Your task to perform on an android device: turn on the 24-hour format for clock Image 0: 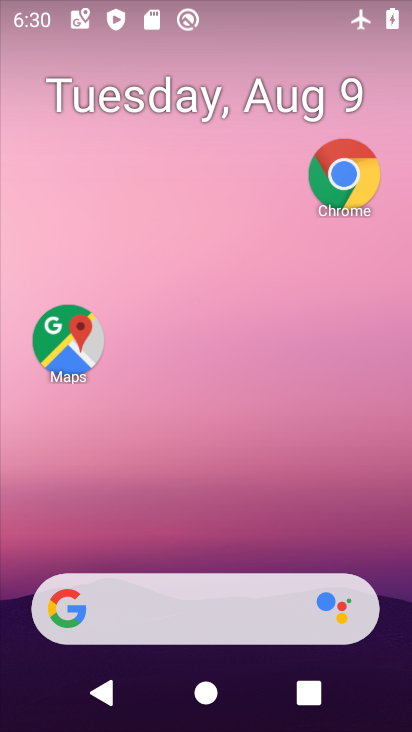
Step 0: click (235, 157)
Your task to perform on an android device: turn on the 24-hour format for clock Image 1: 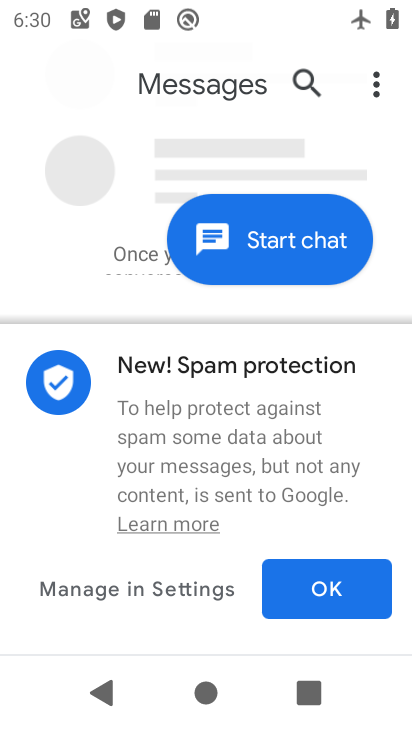
Step 1: press home button
Your task to perform on an android device: turn on the 24-hour format for clock Image 2: 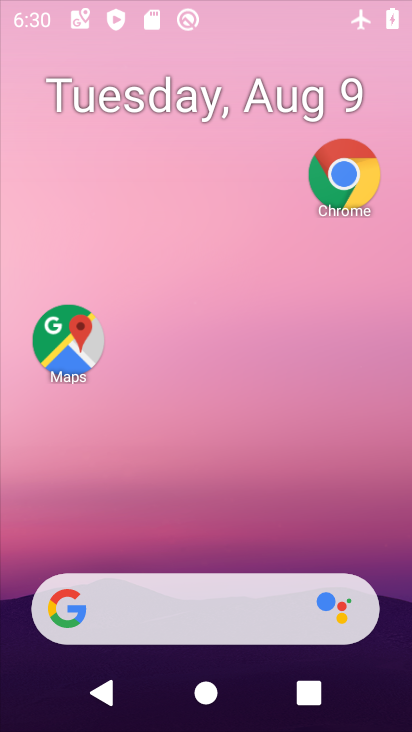
Step 2: drag from (217, 535) to (225, 159)
Your task to perform on an android device: turn on the 24-hour format for clock Image 3: 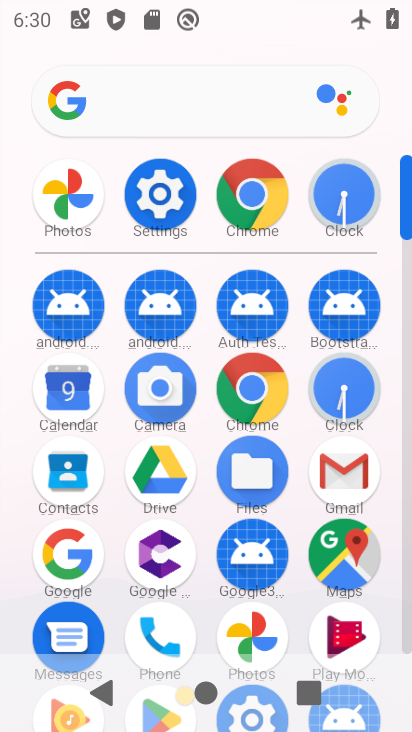
Step 3: click (336, 383)
Your task to perform on an android device: turn on the 24-hour format for clock Image 4: 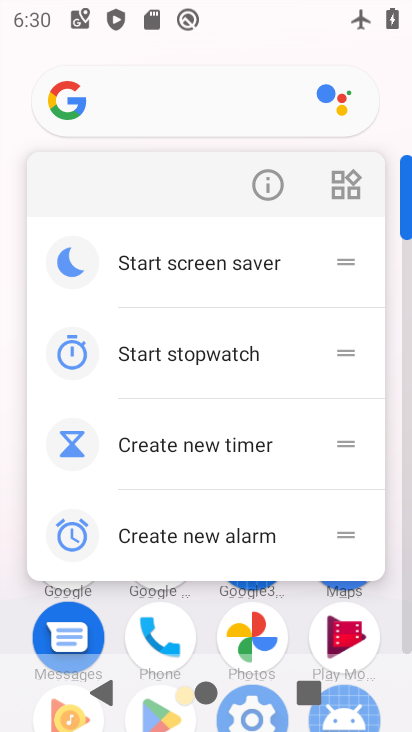
Step 4: click (266, 191)
Your task to perform on an android device: turn on the 24-hour format for clock Image 5: 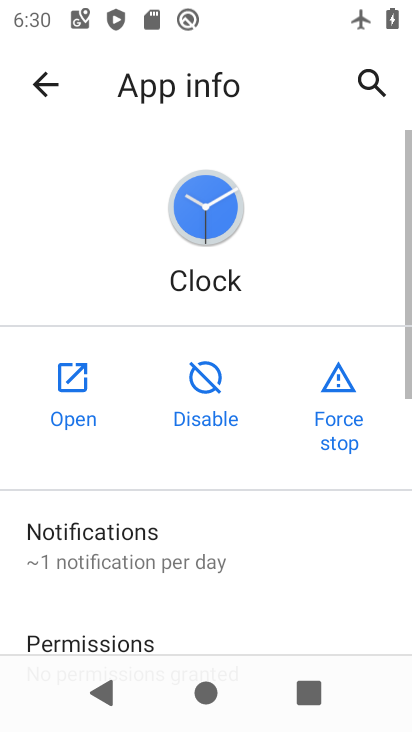
Step 5: click (72, 389)
Your task to perform on an android device: turn on the 24-hour format for clock Image 6: 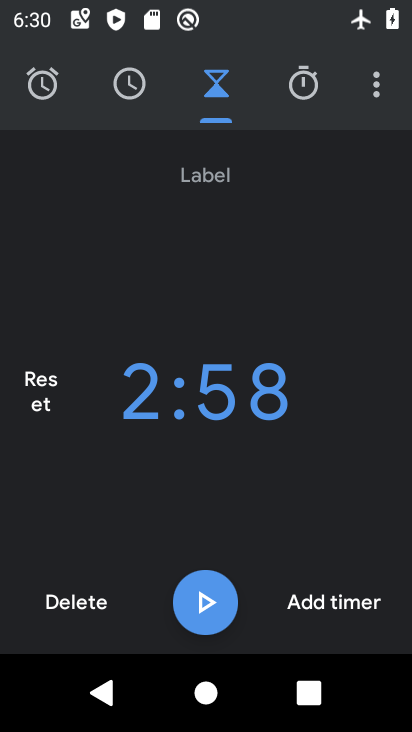
Step 6: drag from (374, 103) to (202, 171)
Your task to perform on an android device: turn on the 24-hour format for clock Image 7: 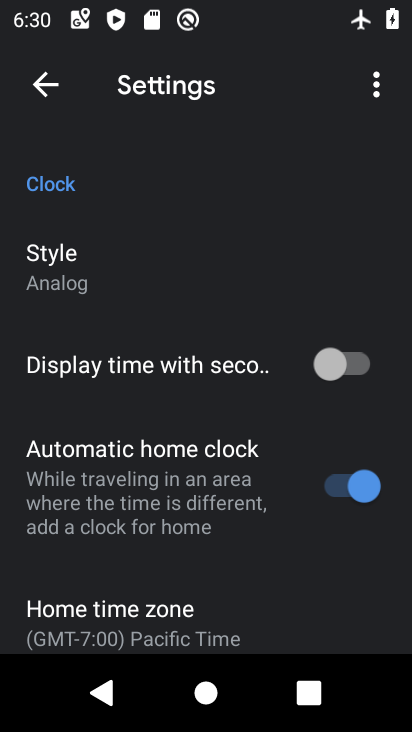
Step 7: drag from (197, 545) to (161, 200)
Your task to perform on an android device: turn on the 24-hour format for clock Image 8: 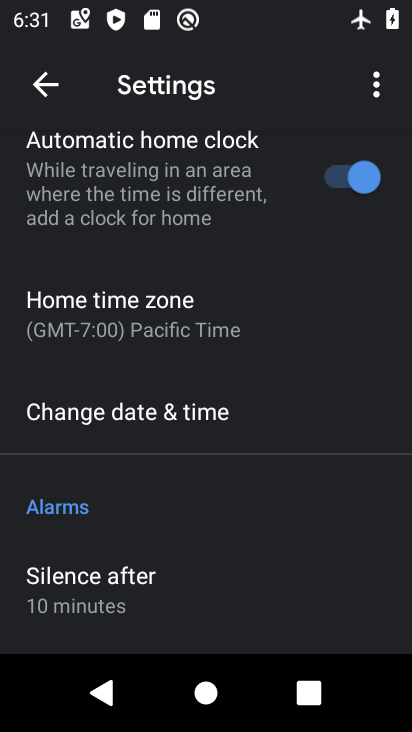
Step 8: drag from (160, 540) to (177, 271)
Your task to perform on an android device: turn on the 24-hour format for clock Image 9: 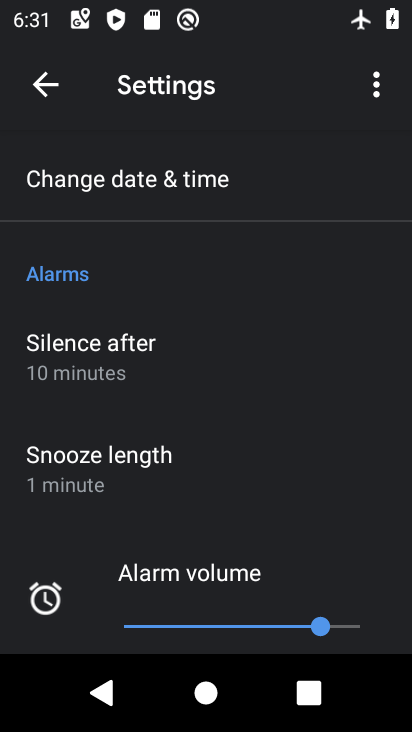
Step 9: click (127, 194)
Your task to perform on an android device: turn on the 24-hour format for clock Image 10: 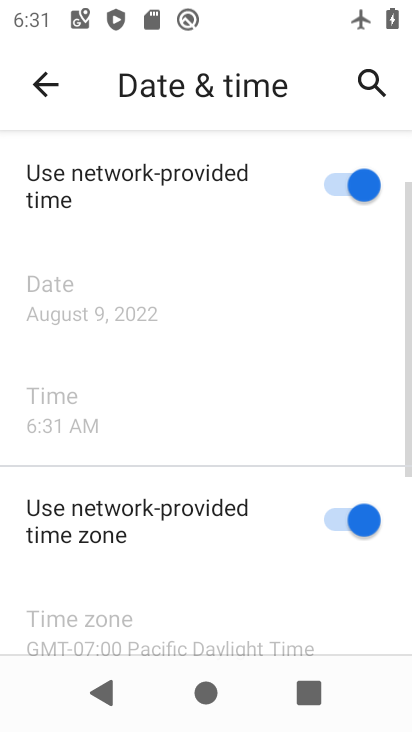
Step 10: drag from (224, 619) to (184, 119)
Your task to perform on an android device: turn on the 24-hour format for clock Image 11: 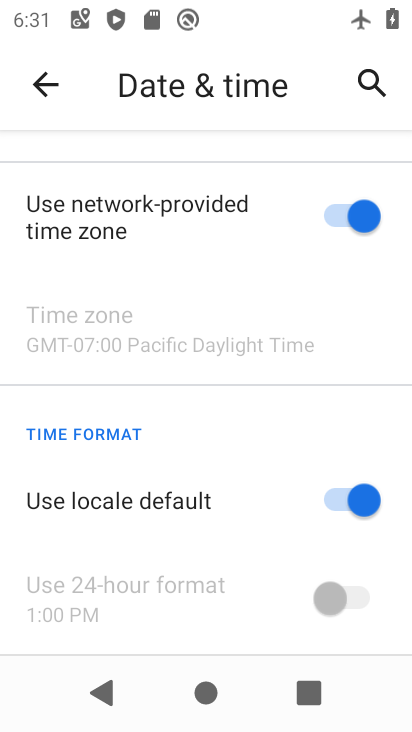
Step 11: drag from (223, 607) to (216, 348)
Your task to perform on an android device: turn on the 24-hour format for clock Image 12: 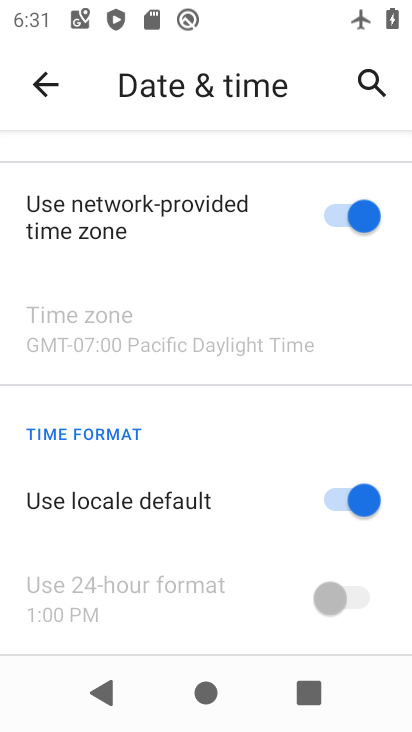
Step 12: drag from (188, 256) to (395, 140)
Your task to perform on an android device: turn on the 24-hour format for clock Image 13: 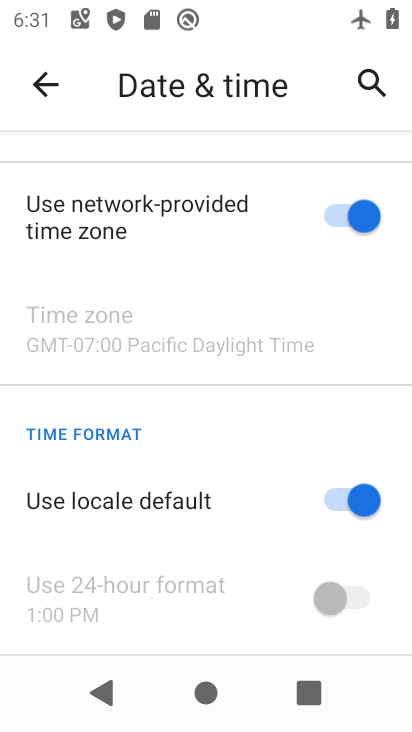
Step 13: click (355, 490)
Your task to perform on an android device: turn on the 24-hour format for clock Image 14: 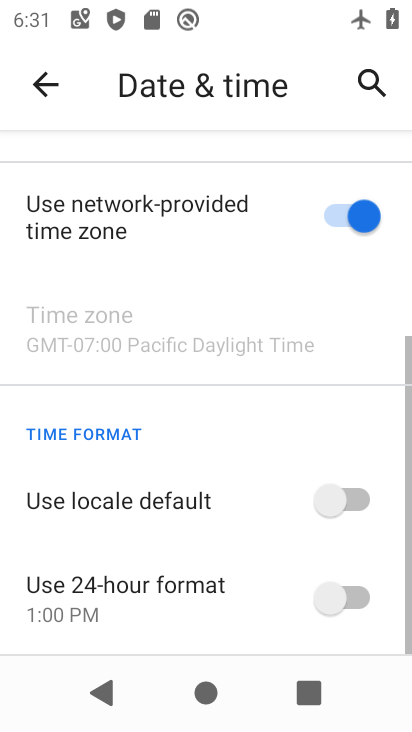
Step 14: click (331, 602)
Your task to perform on an android device: turn on the 24-hour format for clock Image 15: 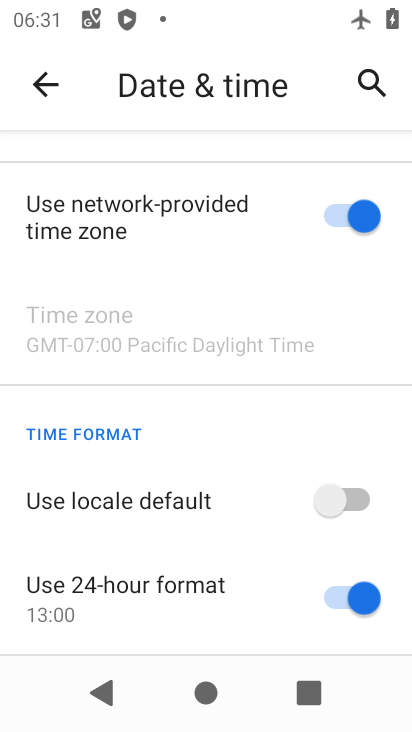
Step 15: task complete